Your task to perform on an android device: Go to location settings Image 0: 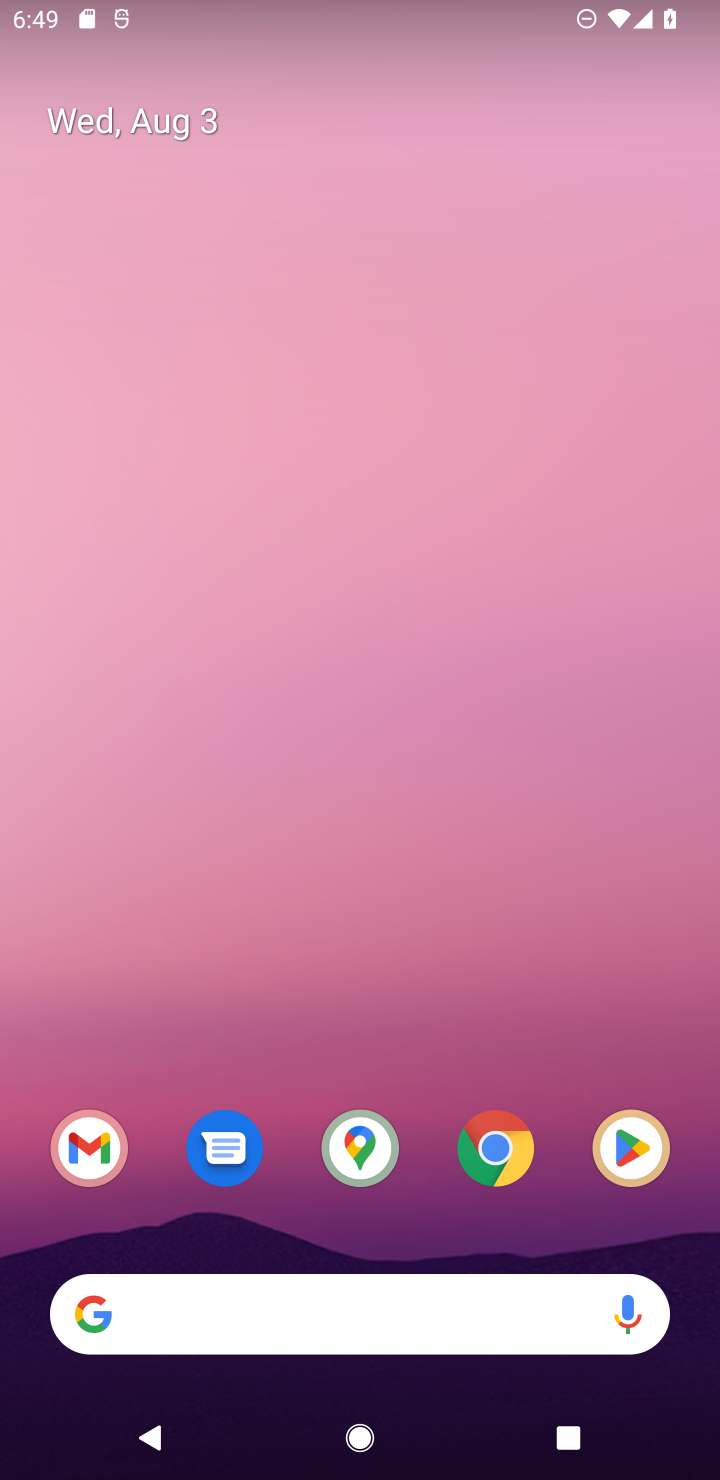
Step 0: drag from (271, 1137) to (376, 174)
Your task to perform on an android device: Go to location settings Image 1: 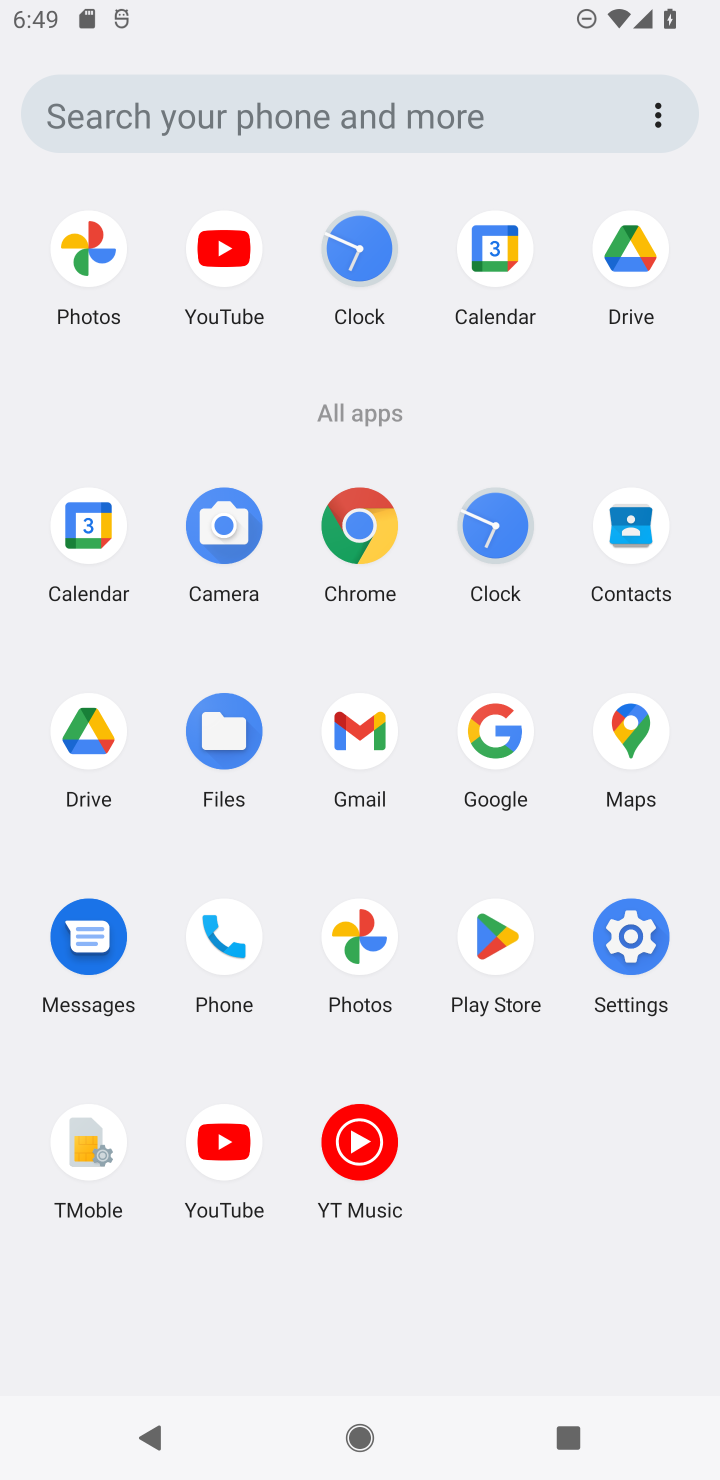
Step 1: click (623, 947)
Your task to perform on an android device: Go to location settings Image 2: 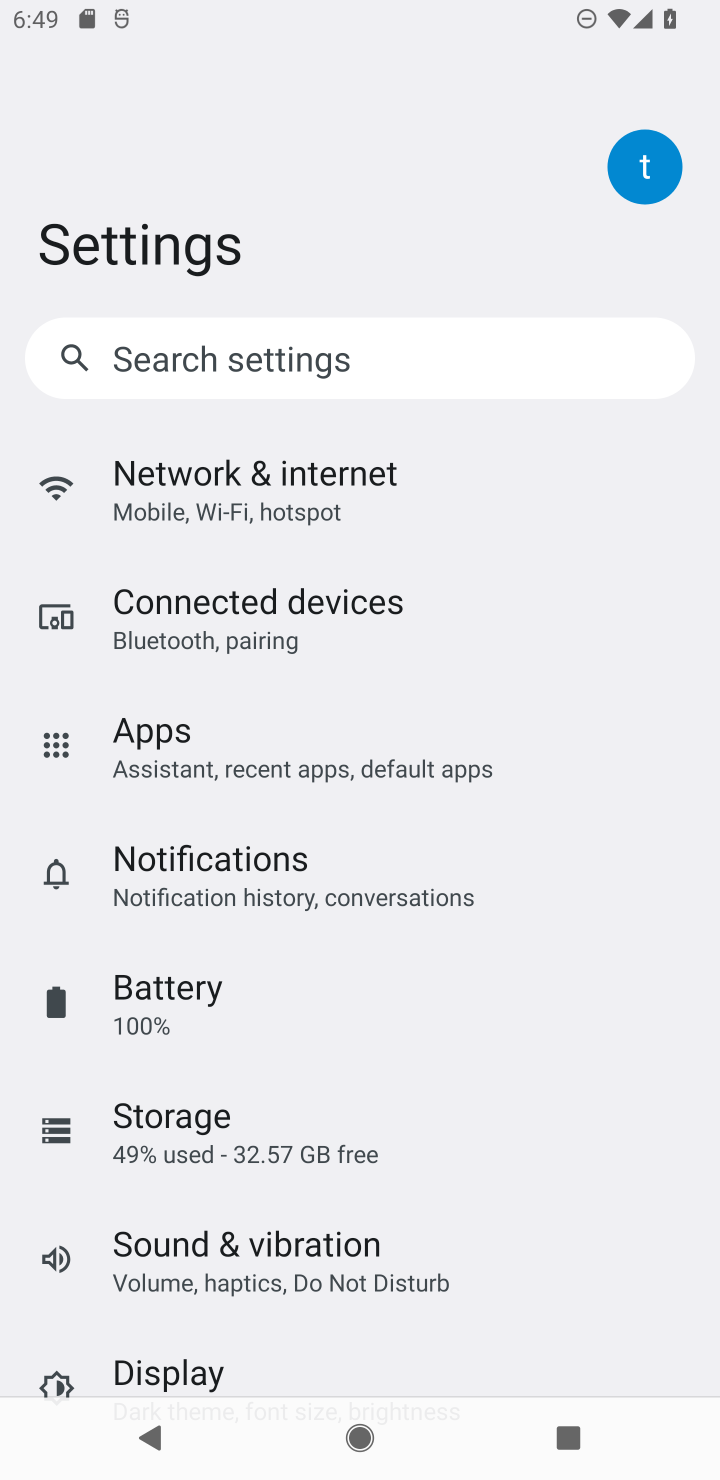
Step 2: drag from (391, 1273) to (385, 616)
Your task to perform on an android device: Go to location settings Image 3: 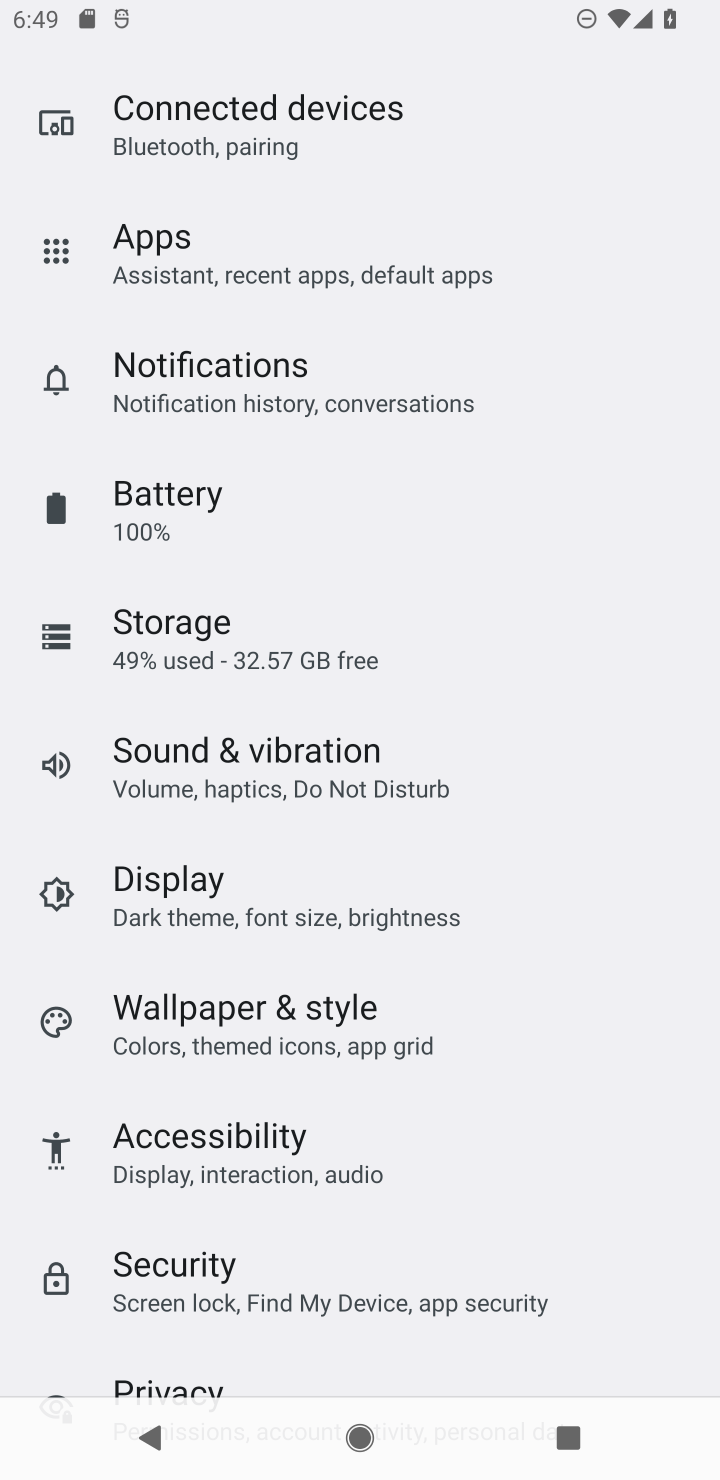
Step 3: drag from (278, 970) to (292, 523)
Your task to perform on an android device: Go to location settings Image 4: 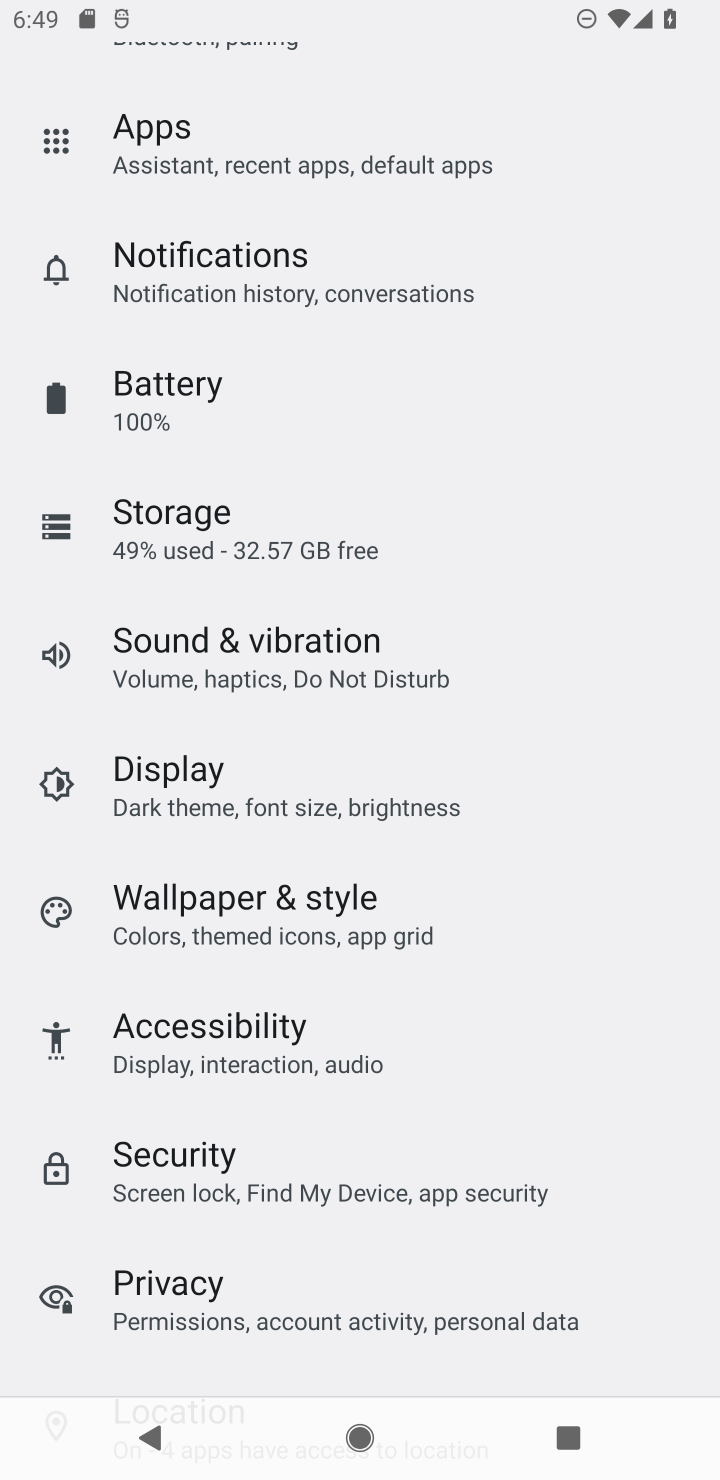
Step 4: drag from (285, 1205) to (352, 677)
Your task to perform on an android device: Go to location settings Image 5: 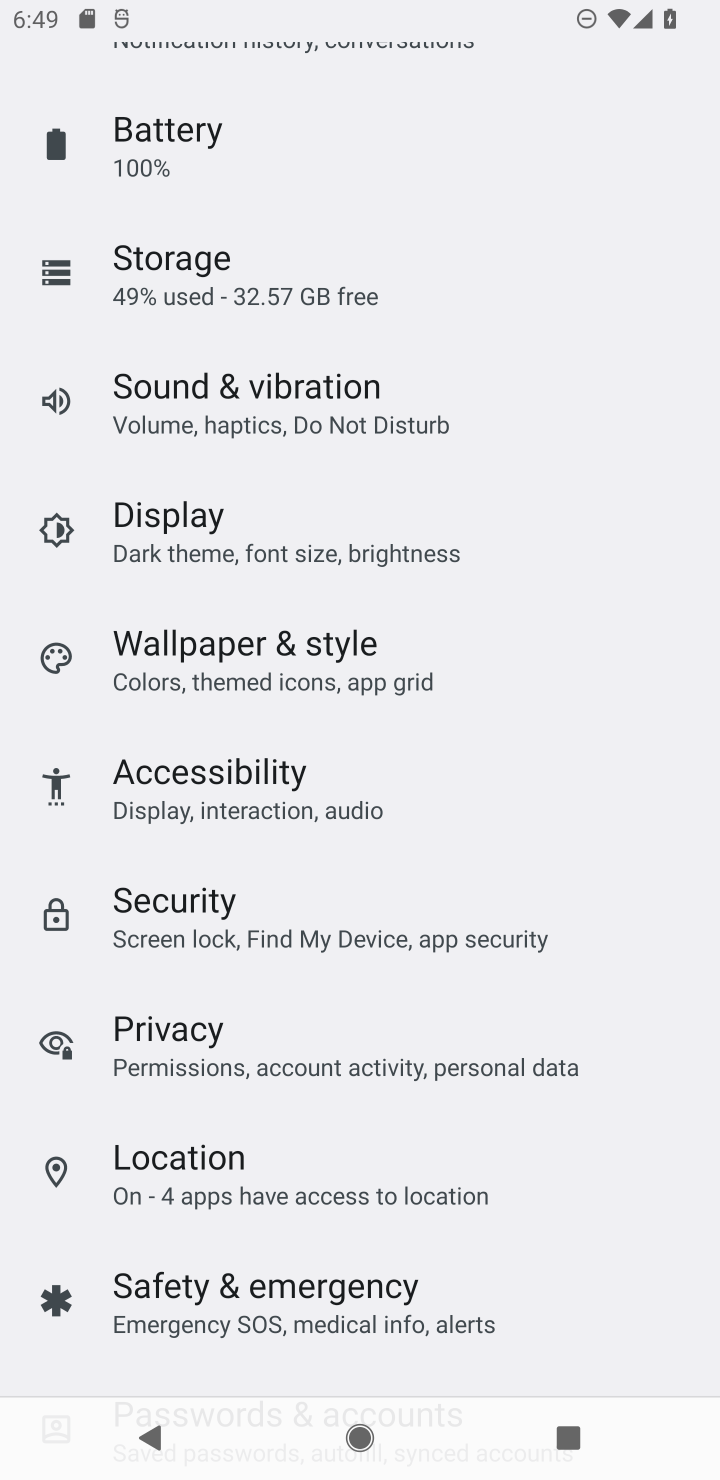
Step 5: click (155, 1205)
Your task to perform on an android device: Go to location settings Image 6: 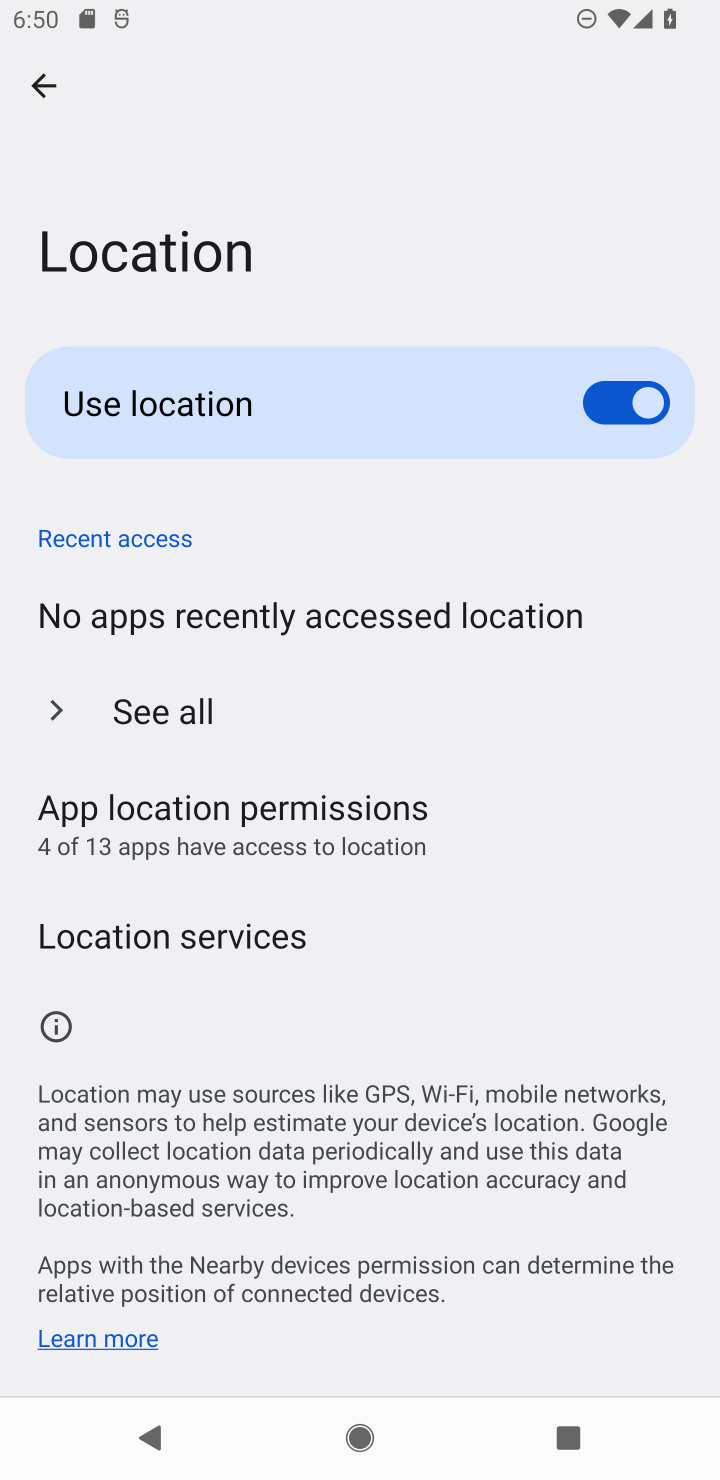
Step 6: task complete